Your task to perform on an android device: install app "WhatsApp Messenger" Image 0: 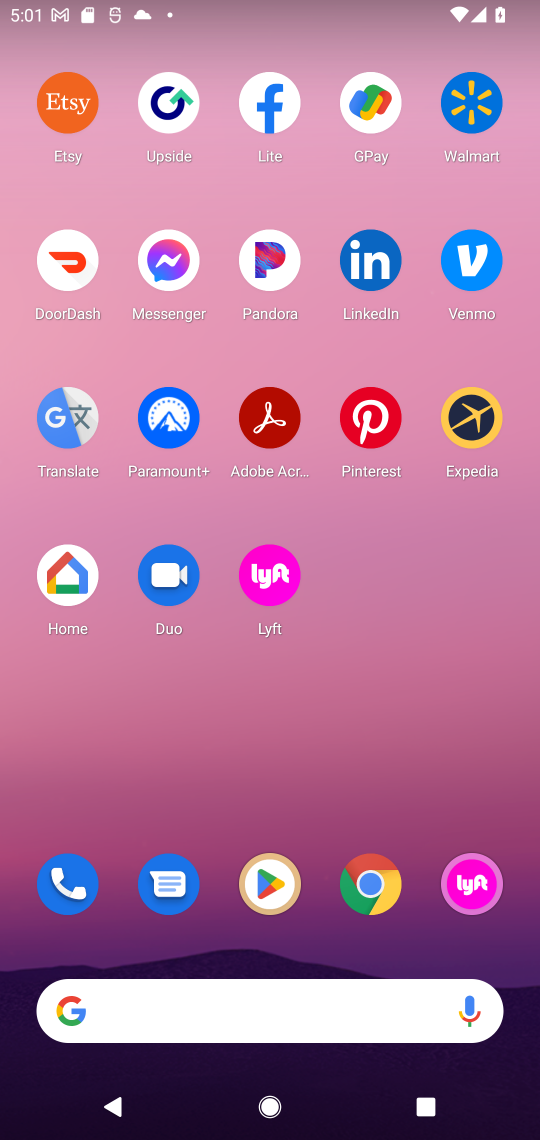
Step 0: click (261, 884)
Your task to perform on an android device: install app "WhatsApp Messenger" Image 1: 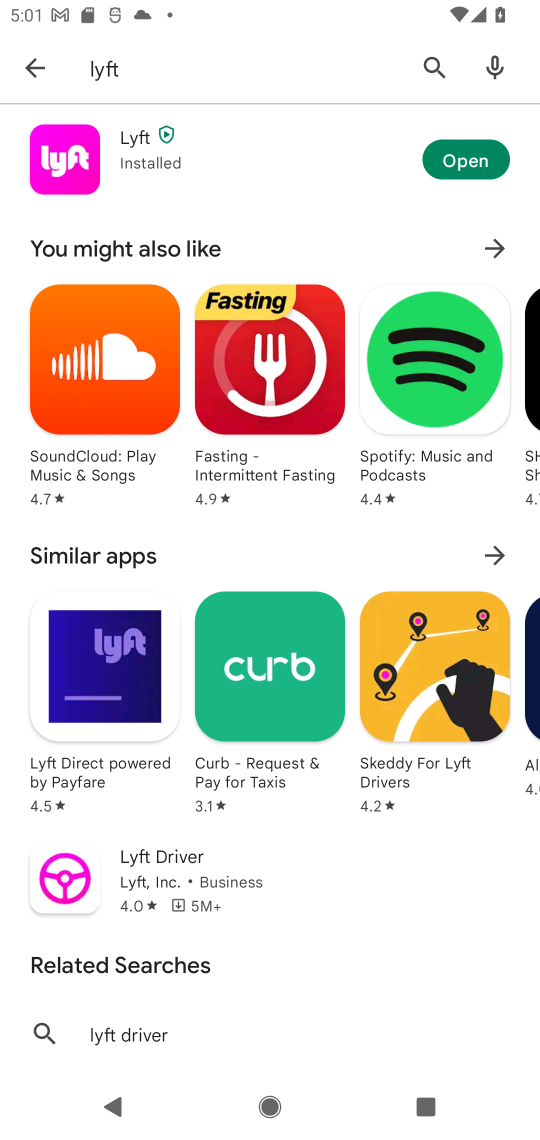
Step 1: click (30, 64)
Your task to perform on an android device: install app "WhatsApp Messenger" Image 2: 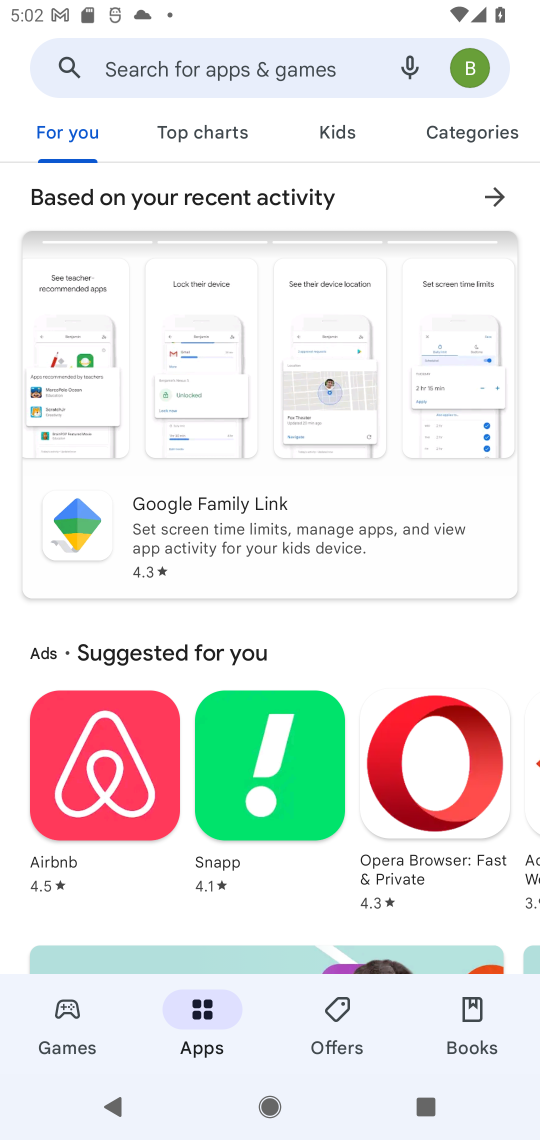
Step 2: click (186, 69)
Your task to perform on an android device: install app "WhatsApp Messenger" Image 3: 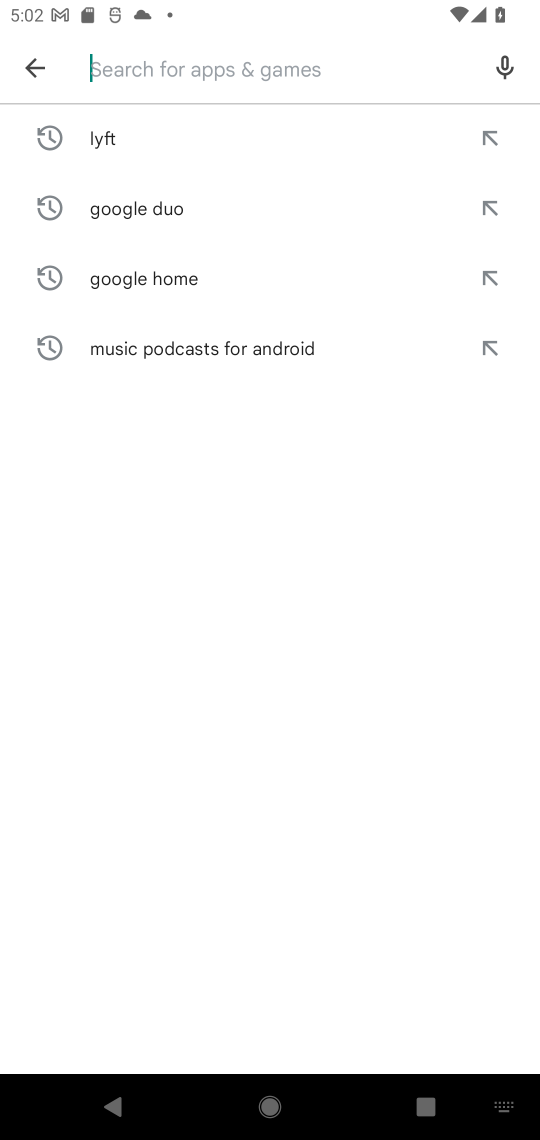
Step 3: type "WhatsApp Messenger"
Your task to perform on an android device: install app "WhatsApp Messenger" Image 4: 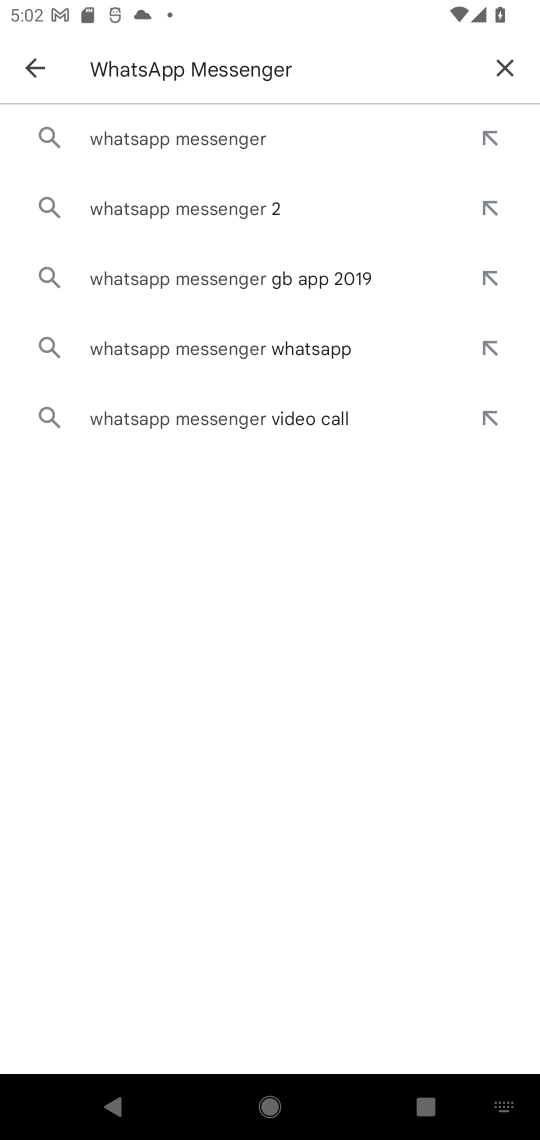
Step 4: click (191, 137)
Your task to perform on an android device: install app "WhatsApp Messenger" Image 5: 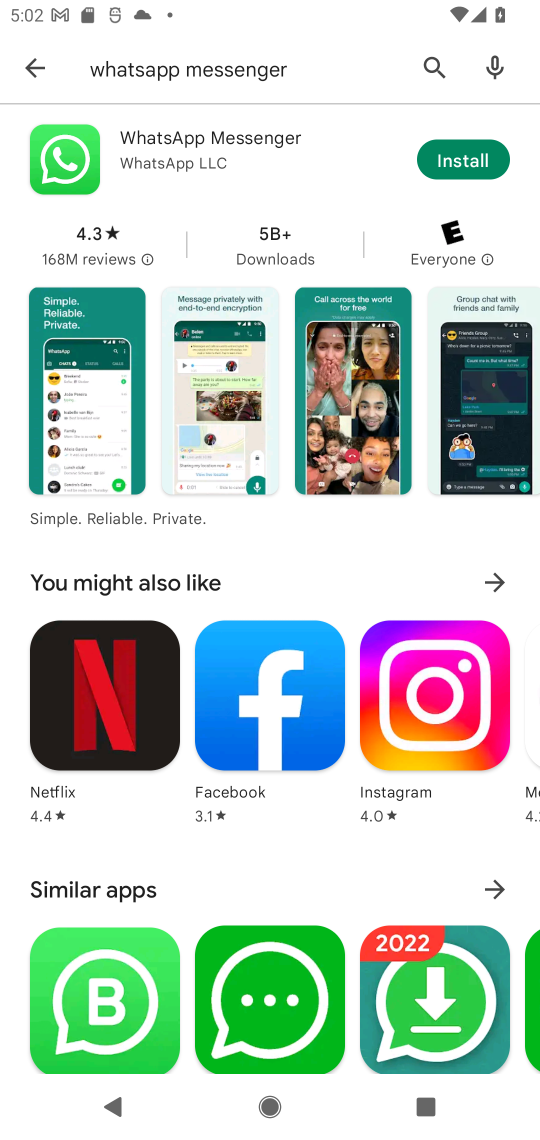
Step 5: click (450, 157)
Your task to perform on an android device: install app "WhatsApp Messenger" Image 6: 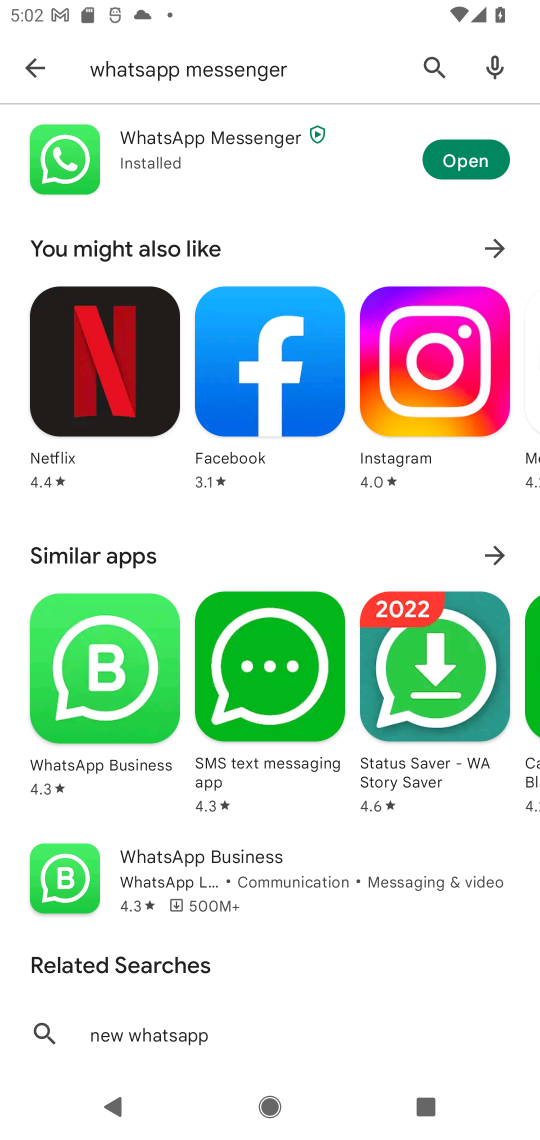
Step 6: click (453, 168)
Your task to perform on an android device: install app "WhatsApp Messenger" Image 7: 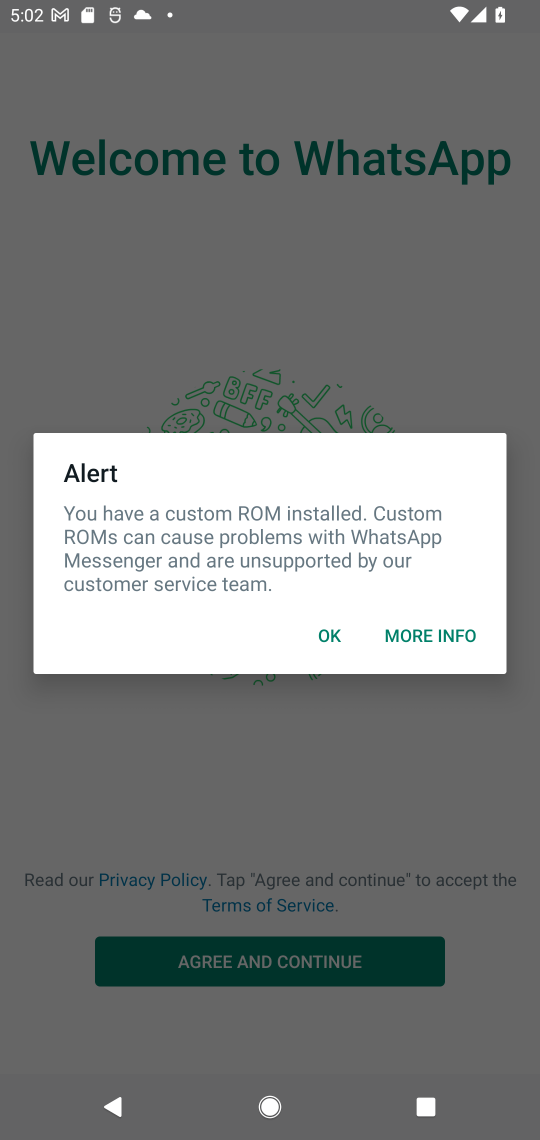
Step 7: click (332, 630)
Your task to perform on an android device: install app "WhatsApp Messenger" Image 8: 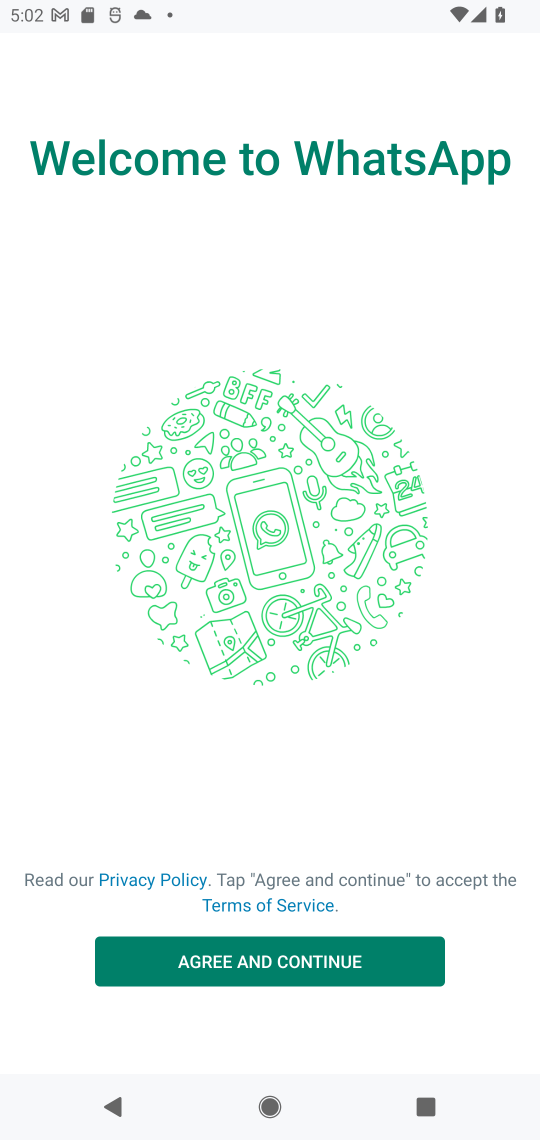
Step 8: task complete